Your task to perform on an android device: uninstall "Google Home" Image 0: 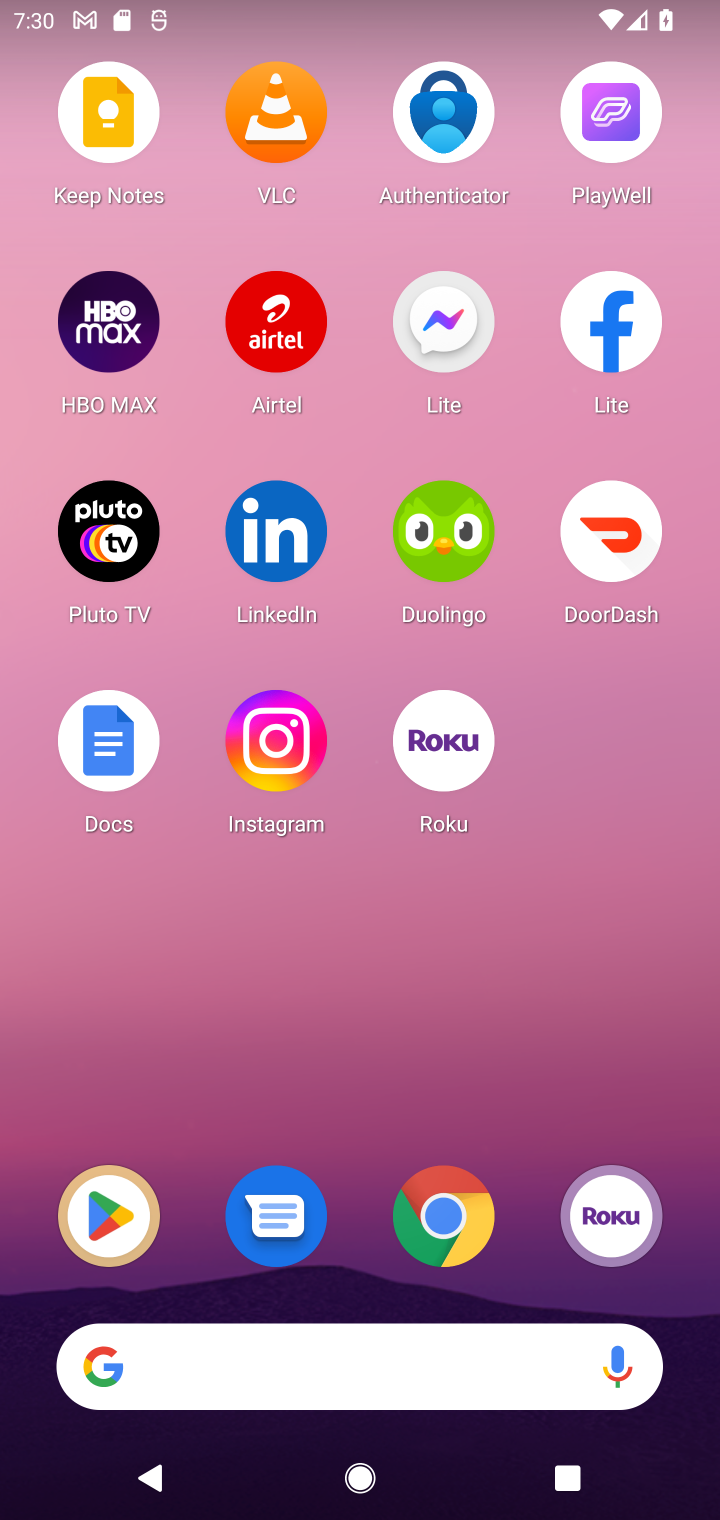
Step 0: press home button
Your task to perform on an android device: uninstall "Google Home" Image 1: 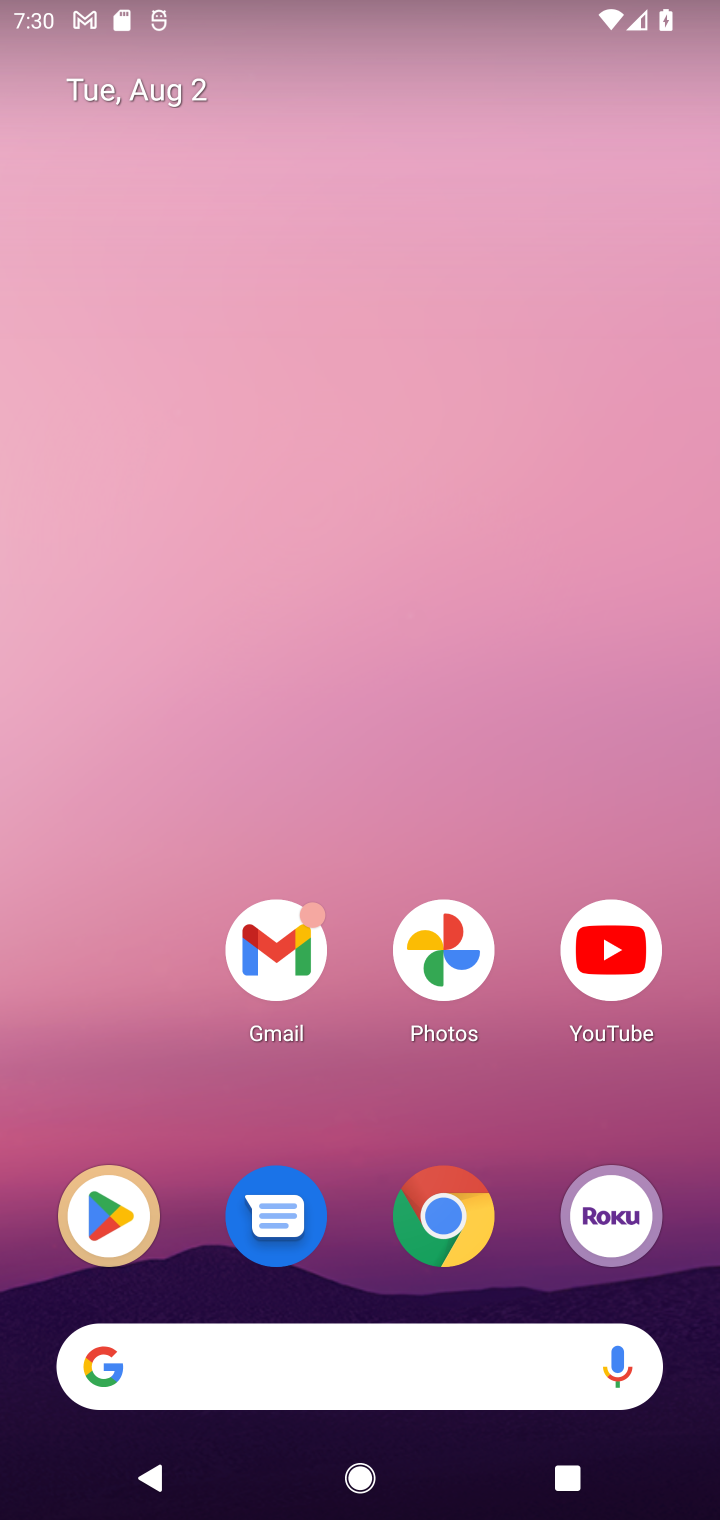
Step 1: click (104, 1215)
Your task to perform on an android device: uninstall "Google Home" Image 2: 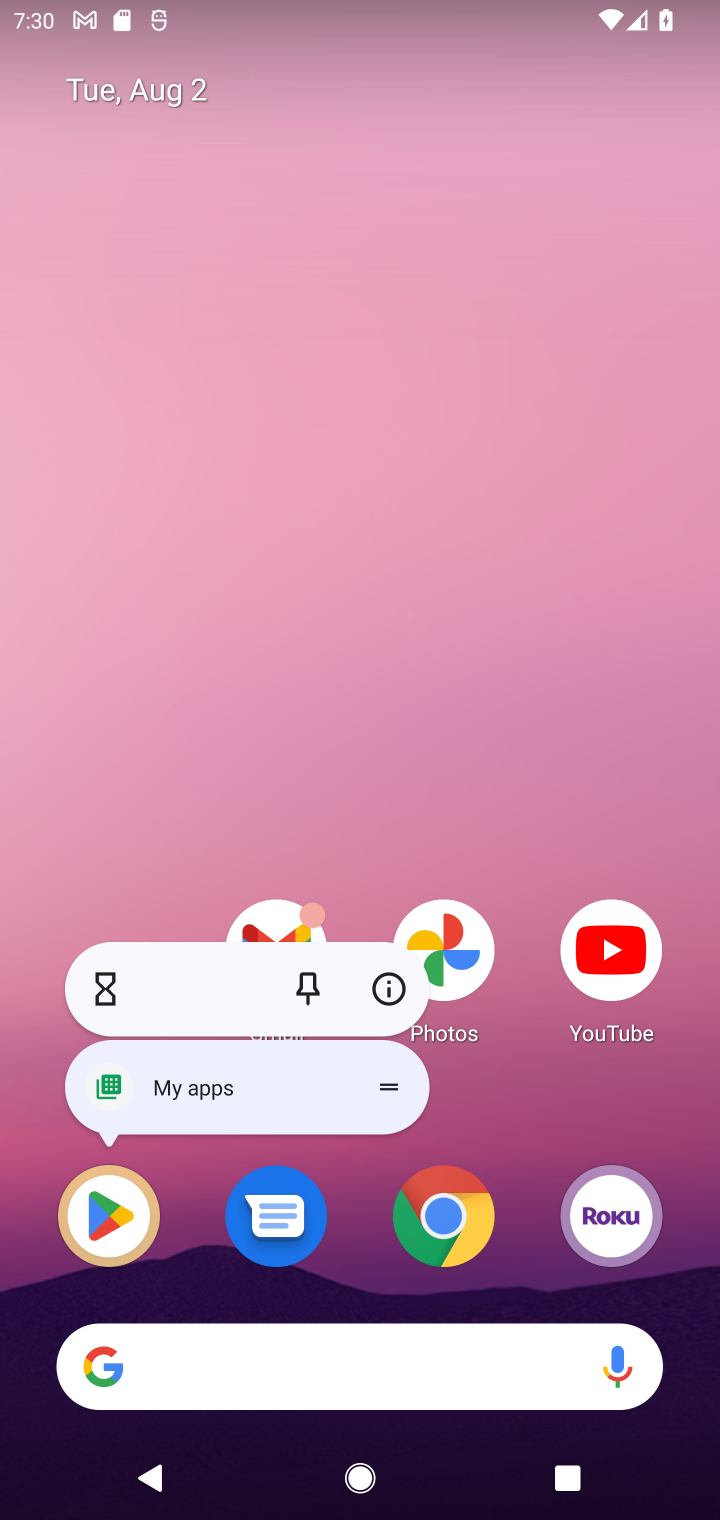
Step 2: click (104, 1219)
Your task to perform on an android device: uninstall "Google Home" Image 3: 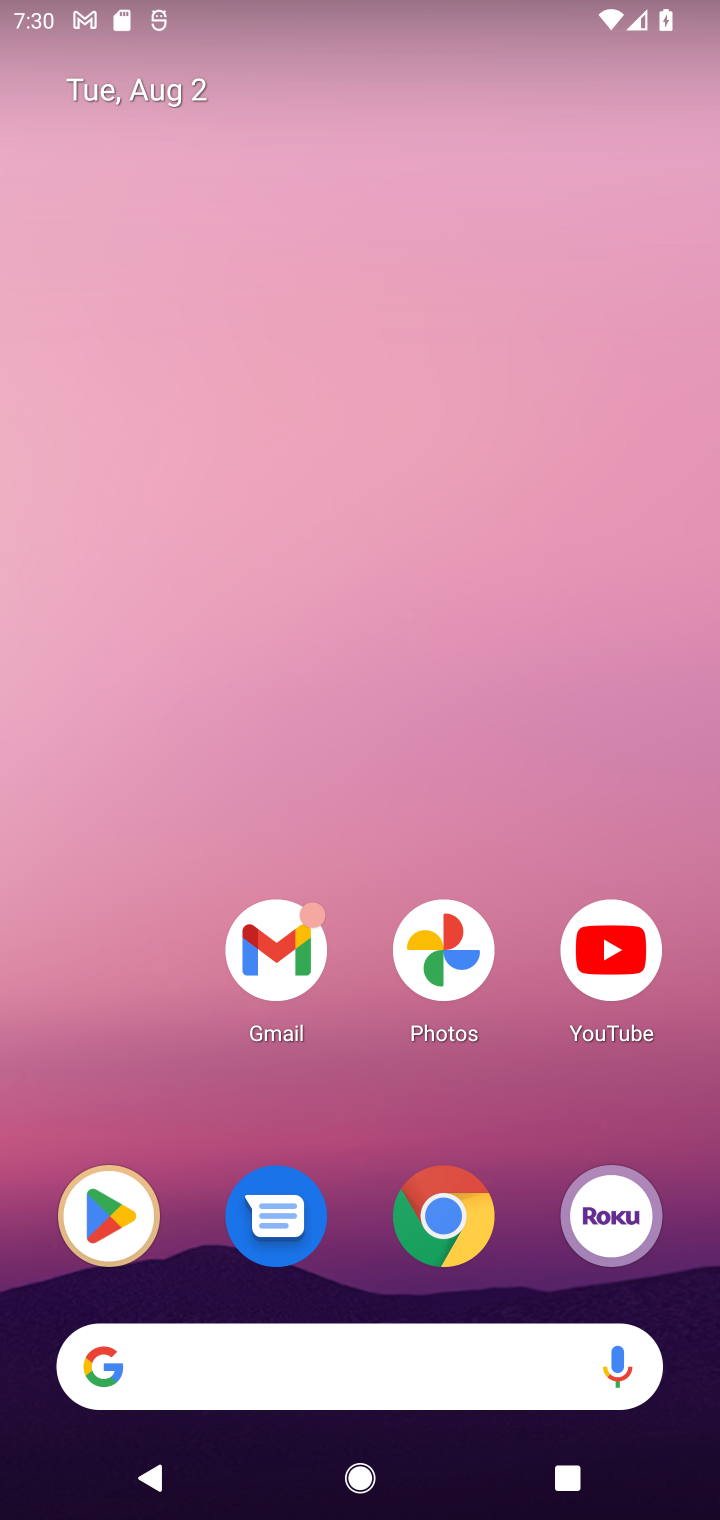
Step 3: click (104, 1217)
Your task to perform on an android device: uninstall "Google Home" Image 4: 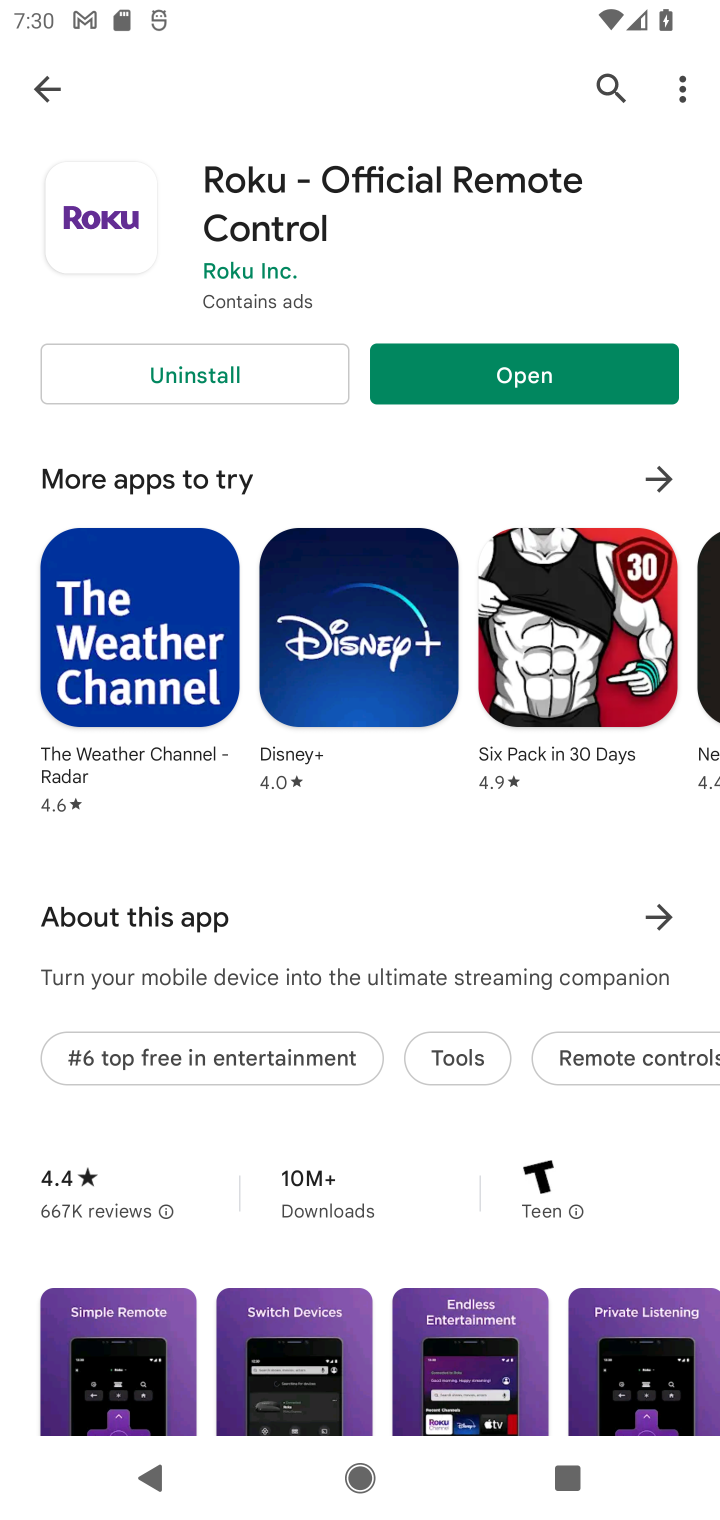
Step 4: click (592, 81)
Your task to perform on an android device: uninstall "Google Home" Image 5: 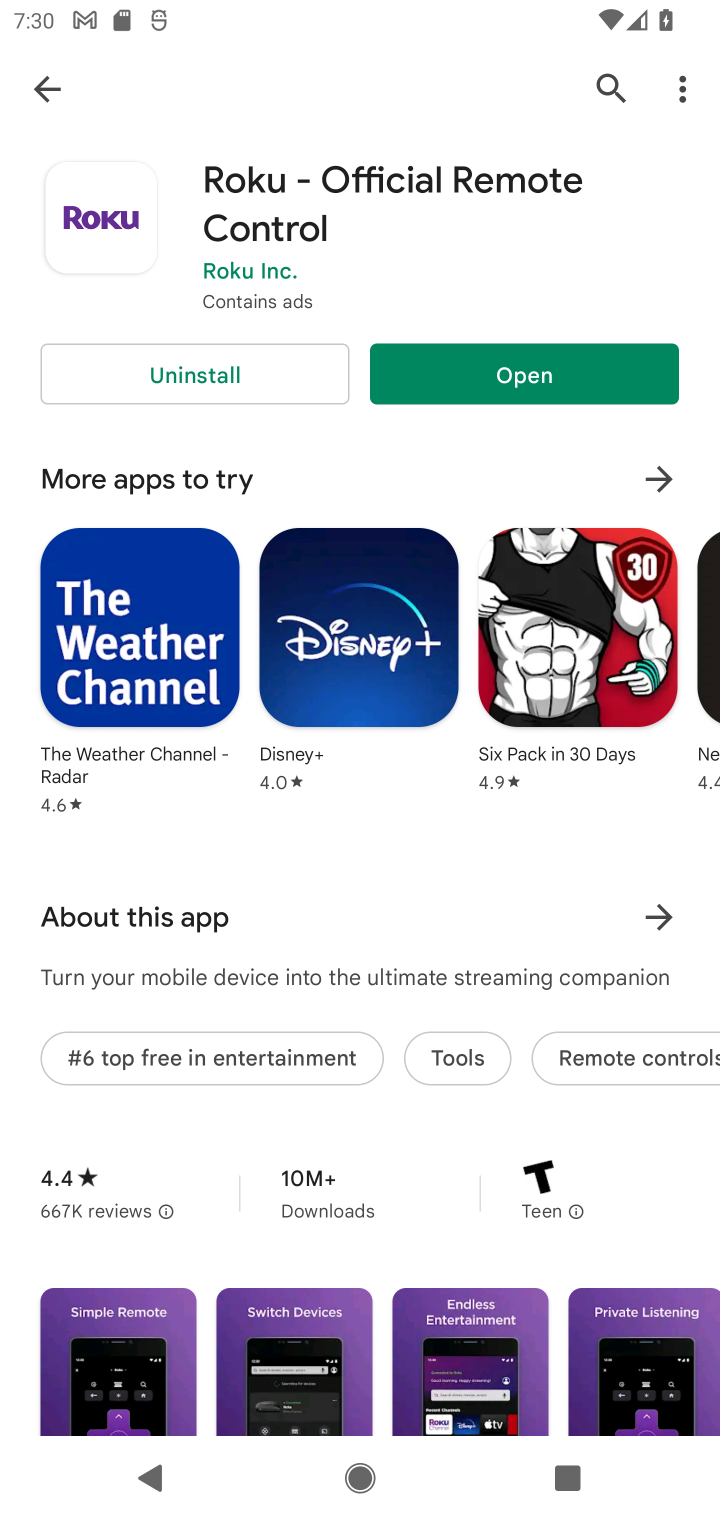
Step 5: click (606, 81)
Your task to perform on an android device: uninstall "Google Home" Image 6: 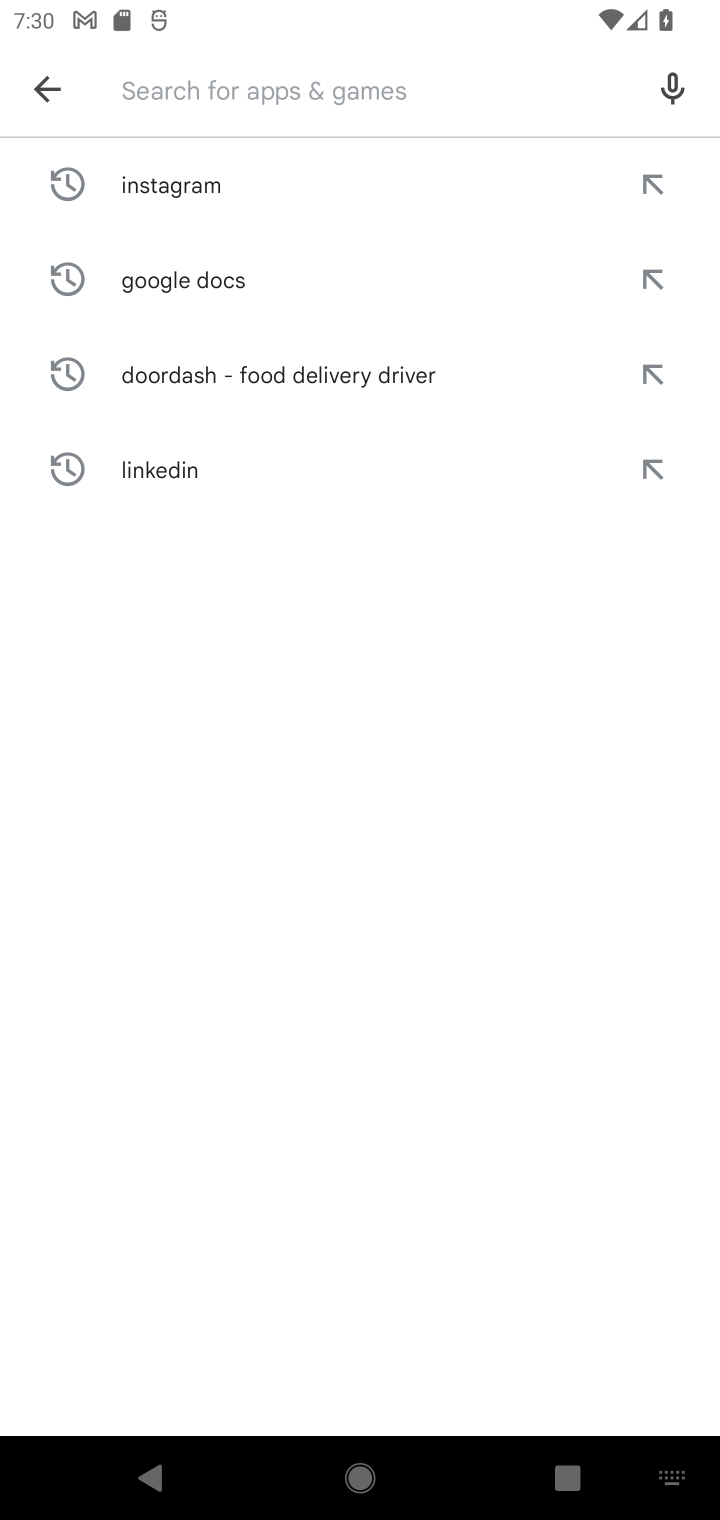
Step 6: type "Google Home"
Your task to perform on an android device: uninstall "Google Home" Image 7: 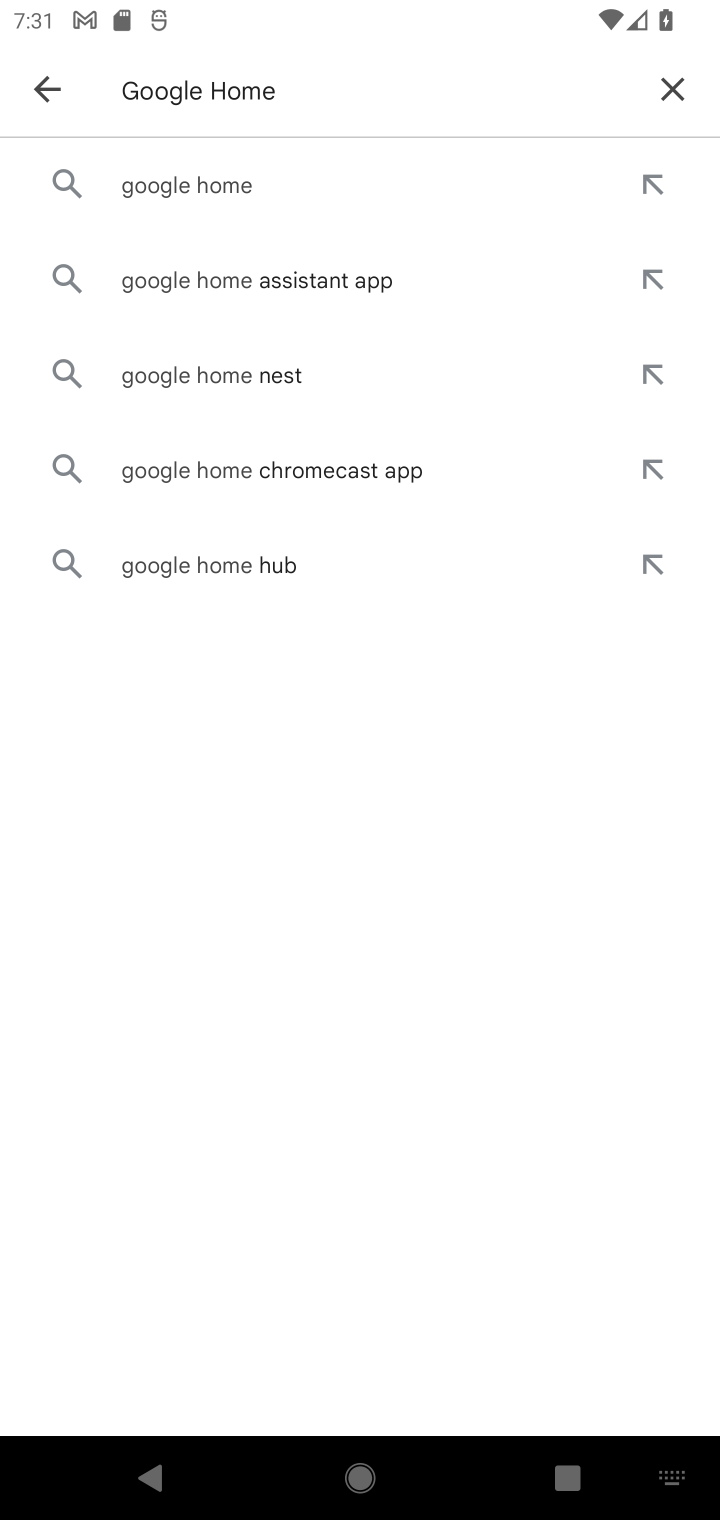
Step 7: click (209, 178)
Your task to perform on an android device: uninstall "Google Home" Image 8: 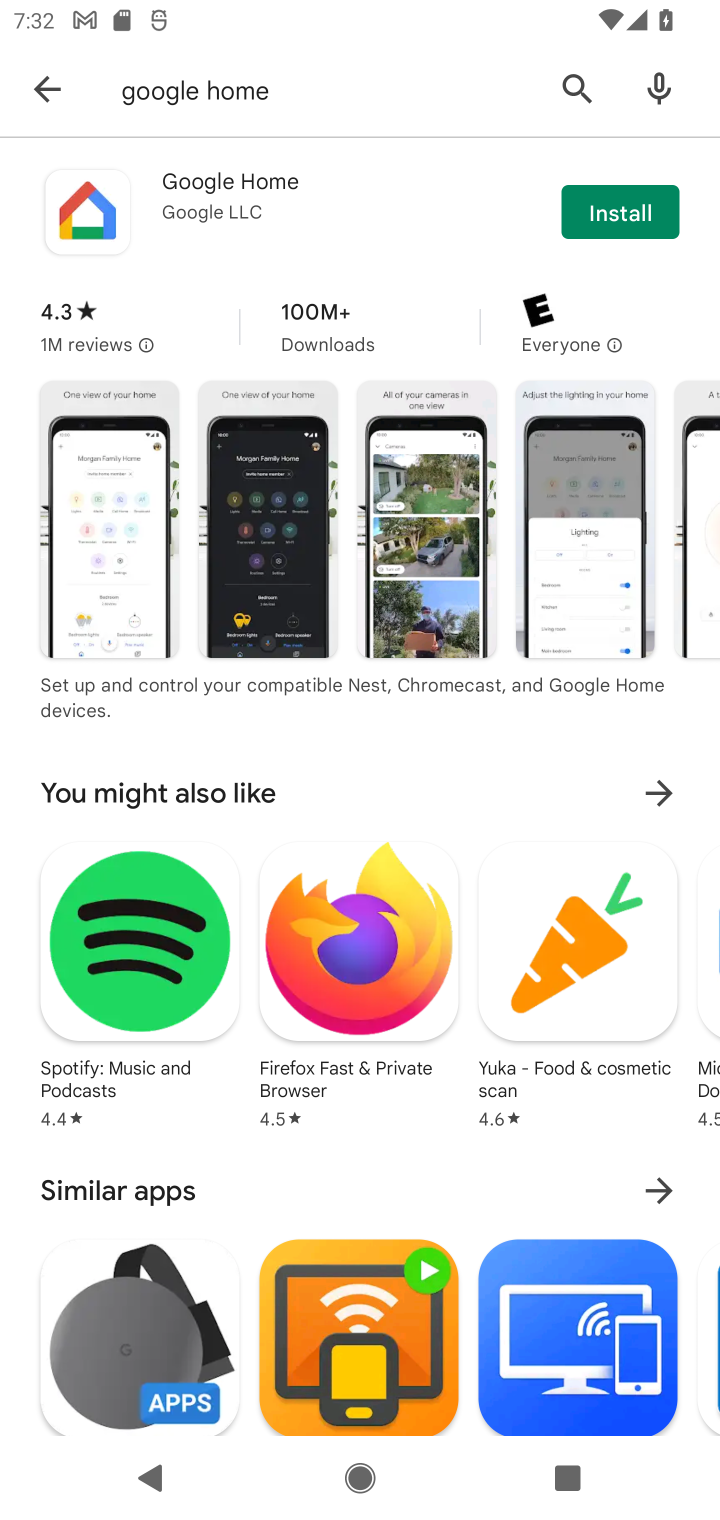
Step 8: task complete